Your task to perform on an android device: check data usage Image 0: 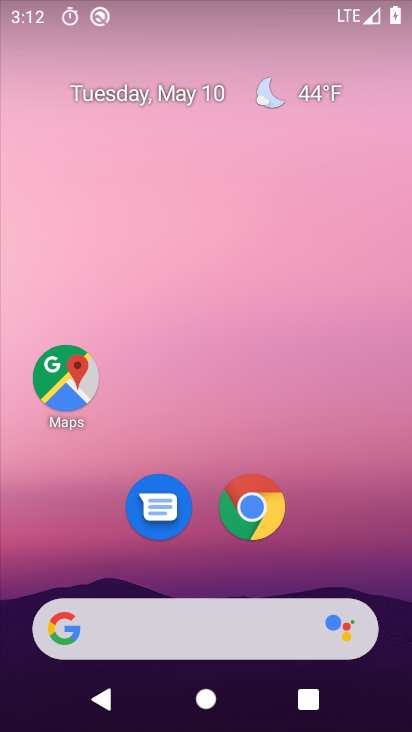
Step 0: drag from (175, 594) to (331, 89)
Your task to perform on an android device: check data usage Image 1: 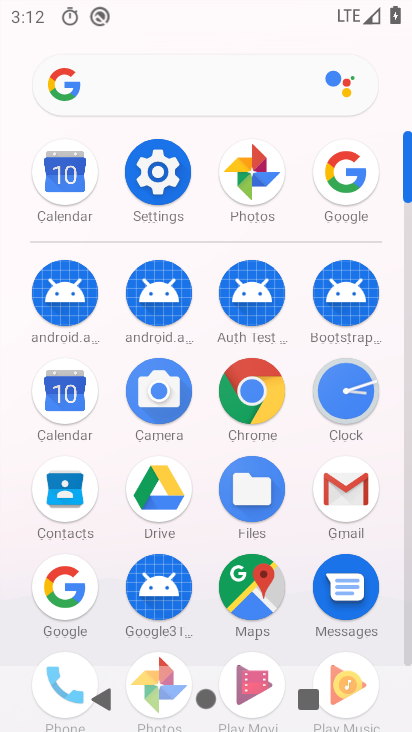
Step 1: click (145, 165)
Your task to perform on an android device: check data usage Image 2: 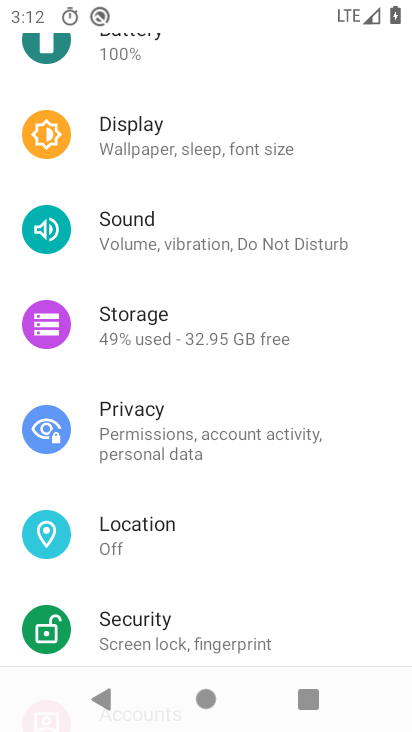
Step 2: drag from (231, 87) to (266, 530)
Your task to perform on an android device: check data usage Image 3: 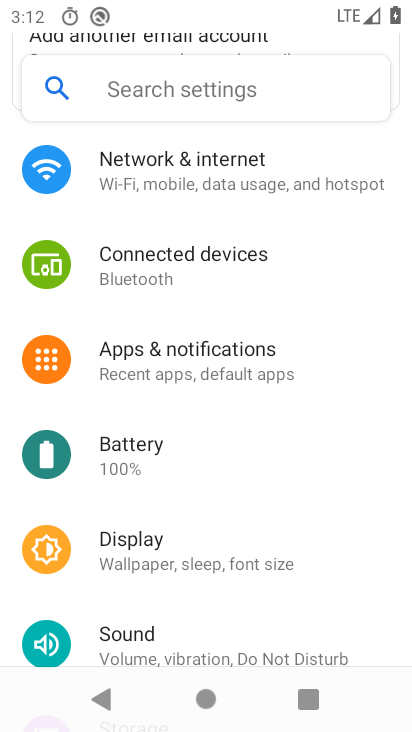
Step 3: drag from (271, 156) to (301, 397)
Your task to perform on an android device: check data usage Image 4: 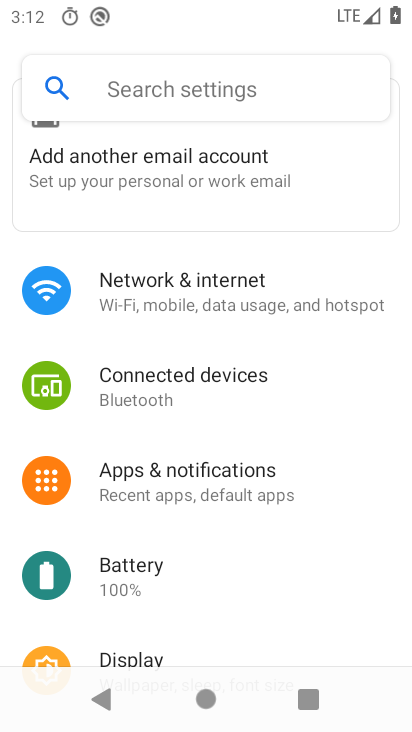
Step 4: click (211, 317)
Your task to perform on an android device: check data usage Image 5: 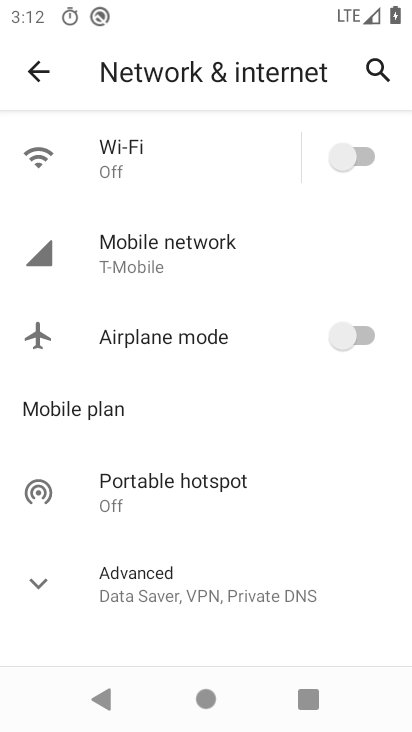
Step 5: click (201, 255)
Your task to perform on an android device: check data usage Image 6: 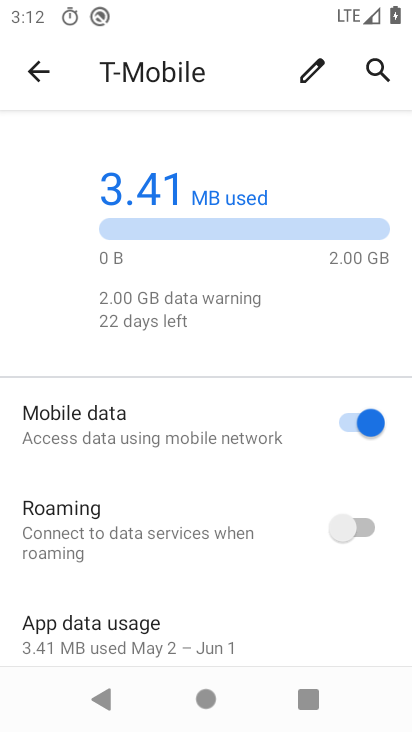
Step 6: task complete